Your task to perform on an android device: Go to ESPN.com Image 0: 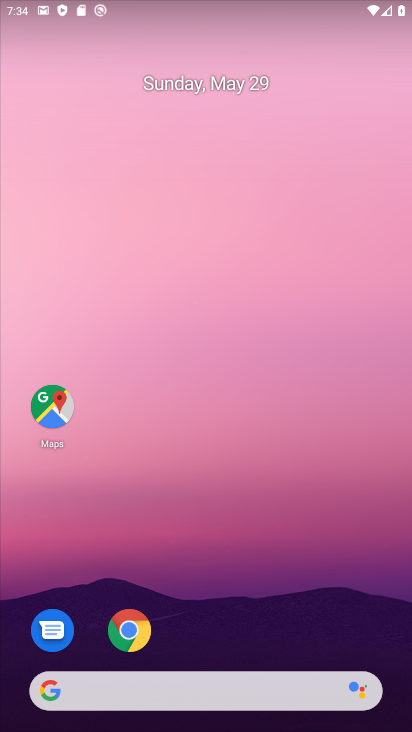
Step 0: click (126, 628)
Your task to perform on an android device: Go to ESPN.com Image 1: 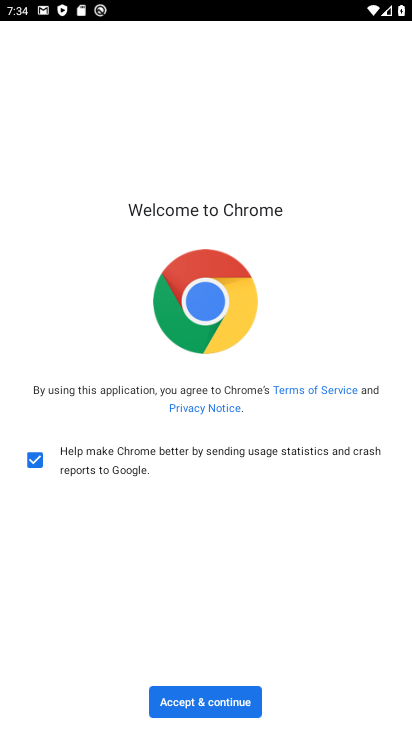
Step 1: click (236, 701)
Your task to perform on an android device: Go to ESPN.com Image 2: 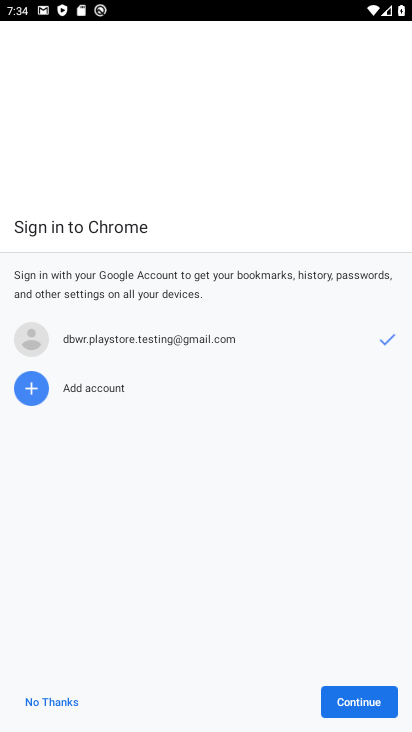
Step 2: click (376, 702)
Your task to perform on an android device: Go to ESPN.com Image 3: 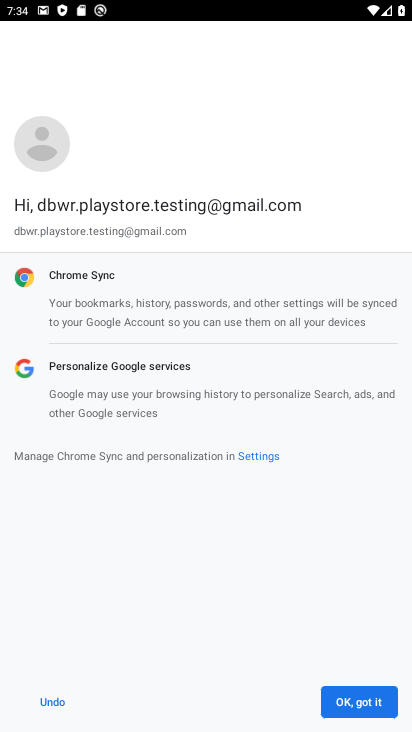
Step 3: click (377, 702)
Your task to perform on an android device: Go to ESPN.com Image 4: 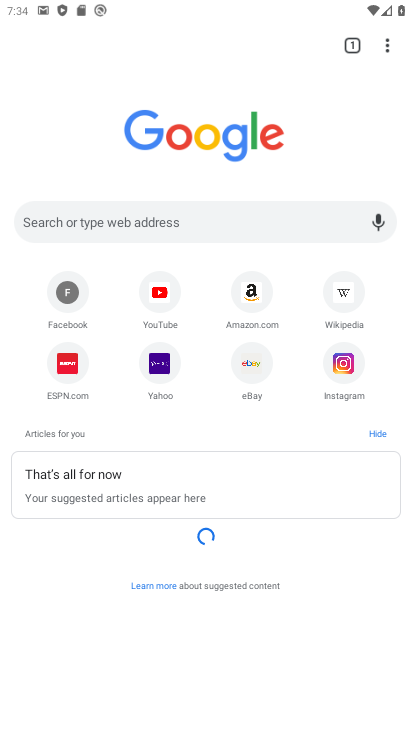
Step 4: click (109, 218)
Your task to perform on an android device: Go to ESPN.com Image 5: 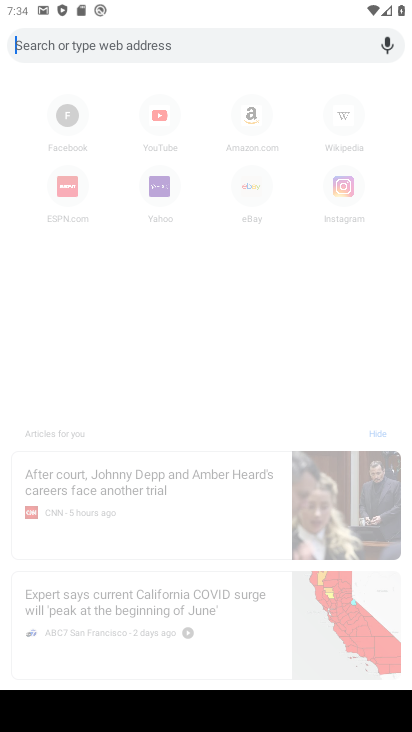
Step 5: type "ESPN.com"
Your task to perform on an android device: Go to ESPN.com Image 6: 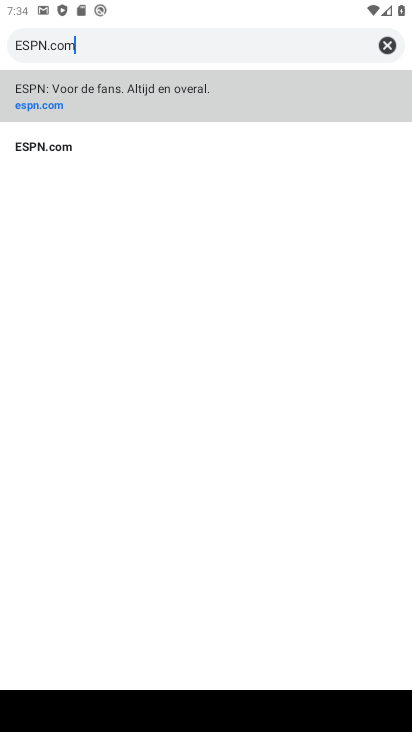
Step 6: click (56, 86)
Your task to perform on an android device: Go to ESPN.com Image 7: 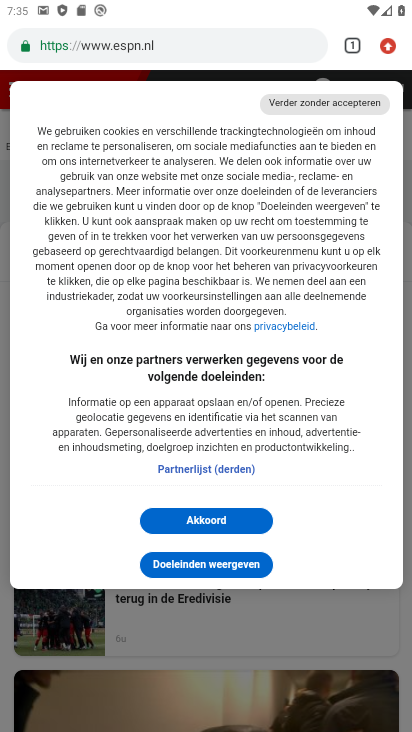
Step 7: task complete